Your task to perform on an android device: Do I have any events this weekend? Image 0: 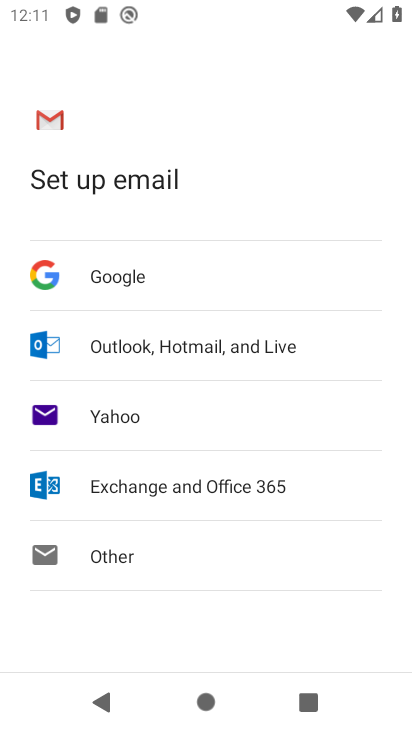
Step 0: press home button
Your task to perform on an android device: Do I have any events this weekend? Image 1: 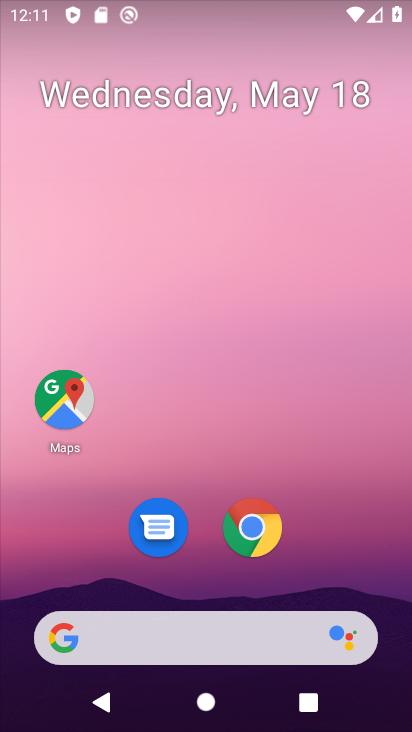
Step 1: drag from (199, 575) to (216, 116)
Your task to perform on an android device: Do I have any events this weekend? Image 2: 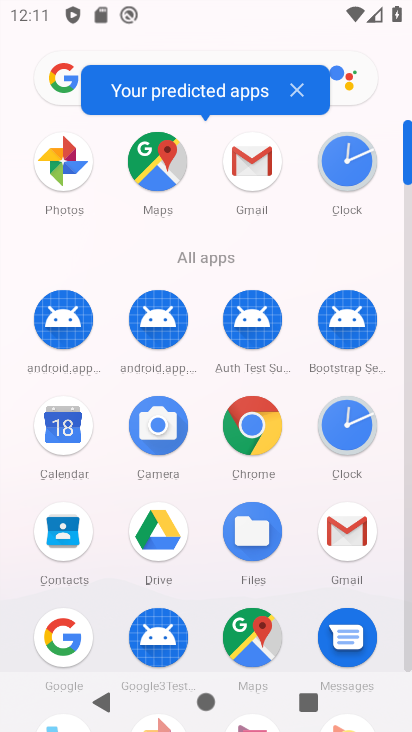
Step 2: click (60, 456)
Your task to perform on an android device: Do I have any events this weekend? Image 3: 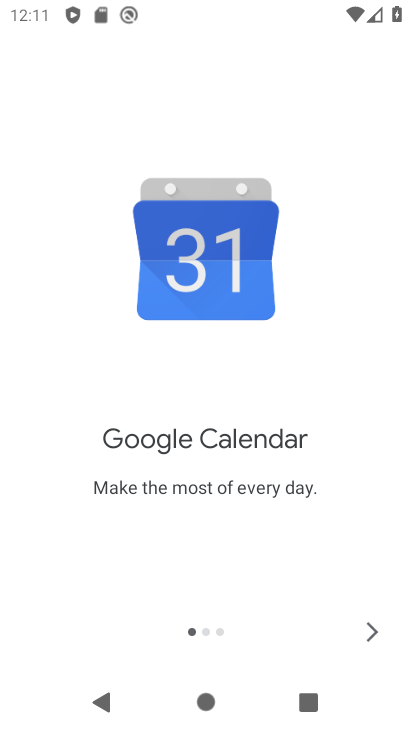
Step 3: click (373, 633)
Your task to perform on an android device: Do I have any events this weekend? Image 4: 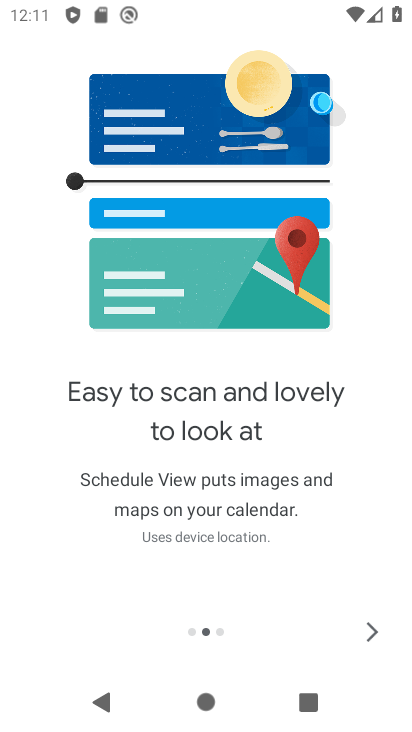
Step 4: click (373, 633)
Your task to perform on an android device: Do I have any events this weekend? Image 5: 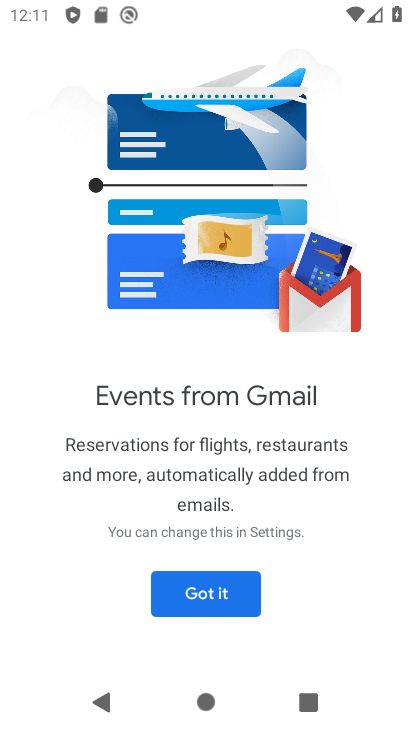
Step 5: click (236, 599)
Your task to perform on an android device: Do I have any events this weekend? Image 6: 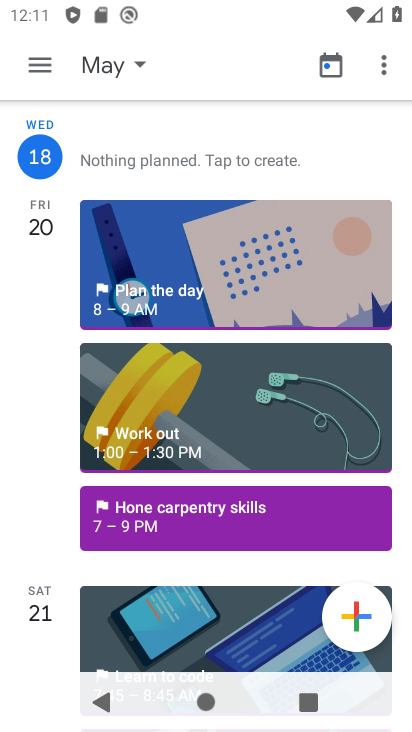
Step 6: click (35, 66)
Your task to perform on an android device: Do I have any events this weekend? Image 7: 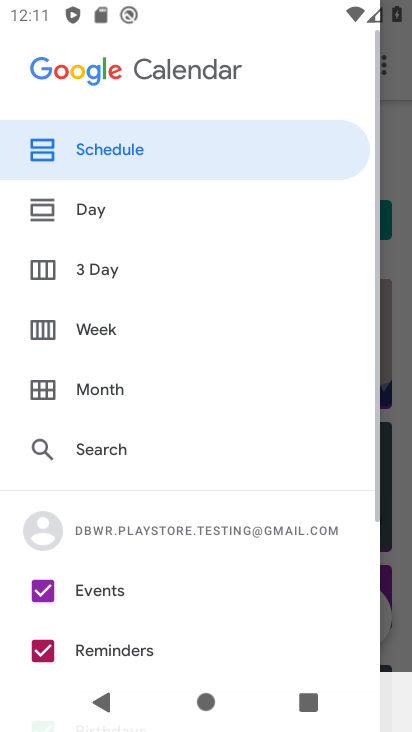
Step 7: drag from (133, 585) to (195, 310)
Your task to perform on an android device: Do I have any events this weekend? Image 8: 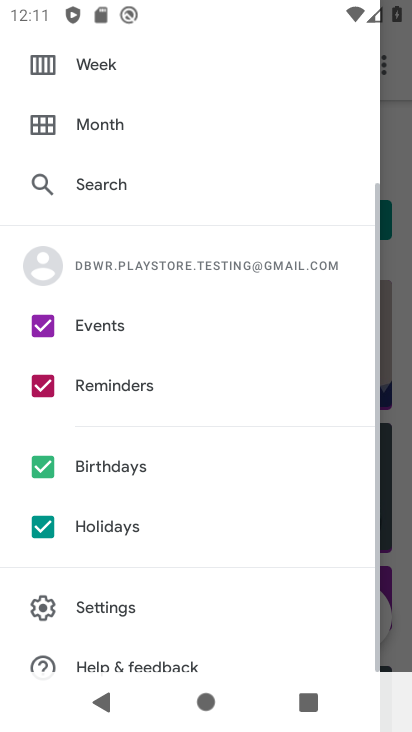
Step 8: click (117, 390)
Your task to perform on an android device: Do I have any events this weekend? Image 9: 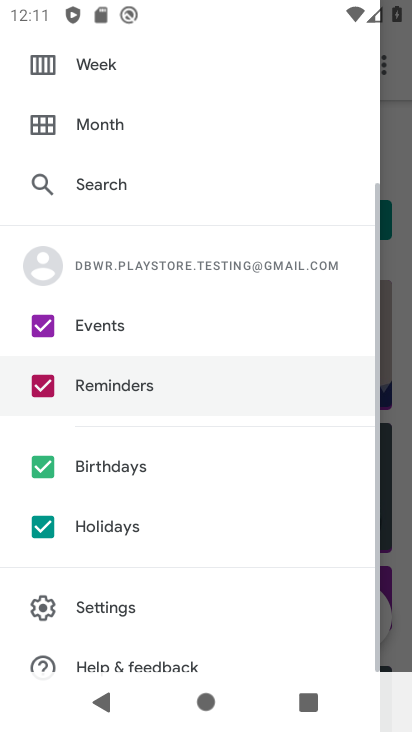
Step 9: click (103, 466)
Your task to perform on an android device: Do I have any events this weekend? Image 10: 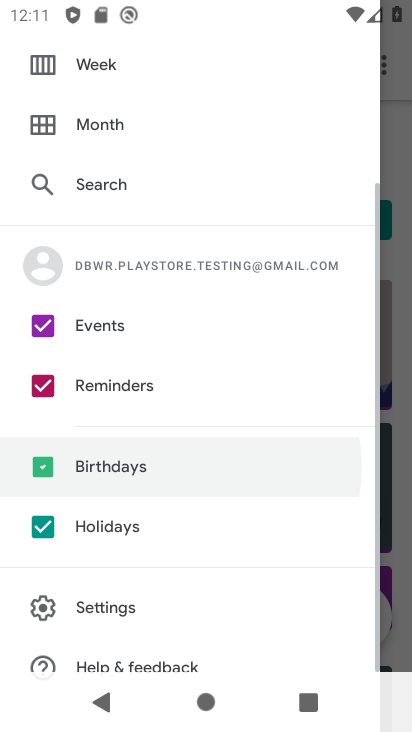
Step 10: click (90, 522)
Your task to perform on an android device: Do I have any events this weekend? Image 11: 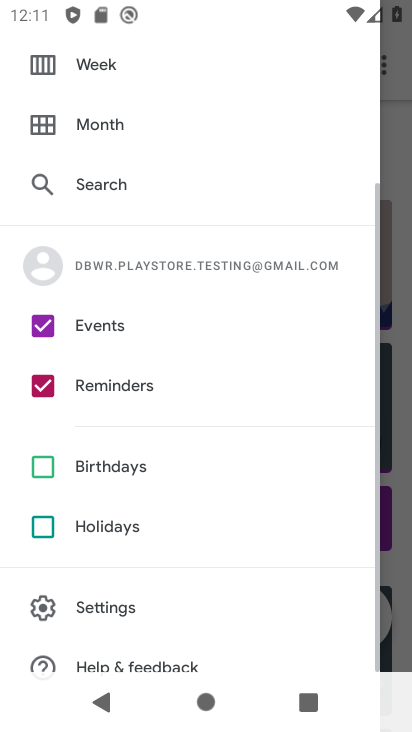
Step 11: click (84, 376)
Your task to perform on an android device: Do I have any events this weekend? Image 12: 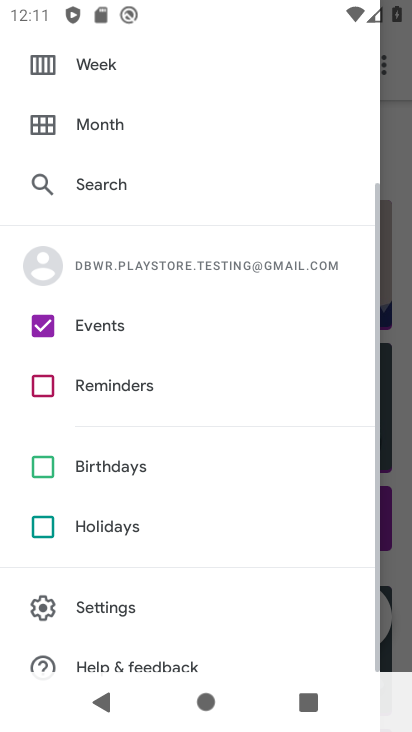
Step 12: drag from (255, 182) to (250, 428)
Your task to perform on an android device: Do I have any events this weekend? Image 13: 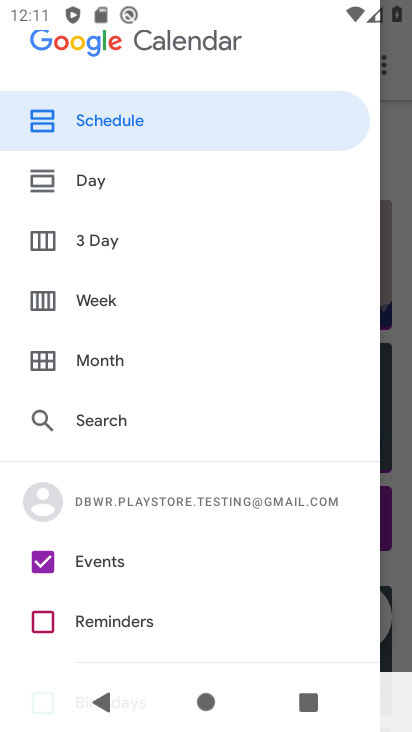
Step 13: click (85, 308)
Your task to perform on an android device: Do I have any events this weekend? Image 14: 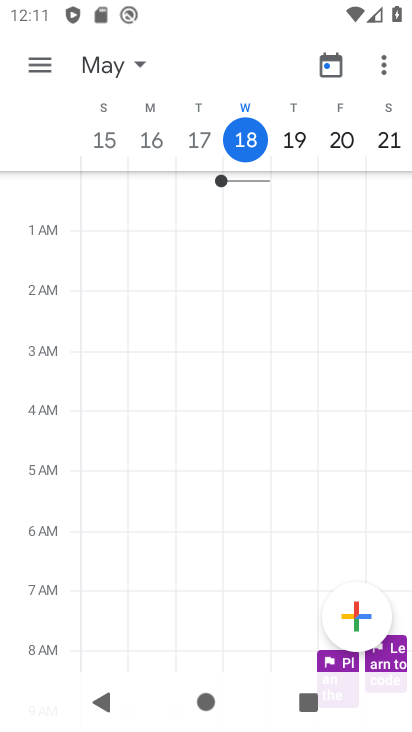
Step 14: task complete